Your task to perform on an android device: Go to location settings Image 0: 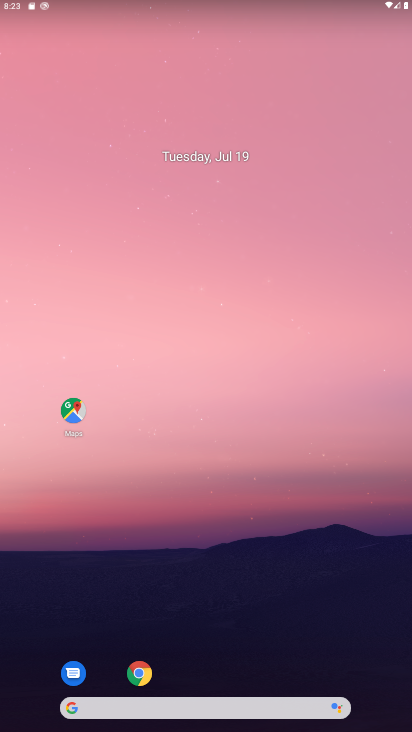
Step 0: drag from (372, 649) to (328, 49)
Your task to perform on an android device: Go to location settings Image 1: 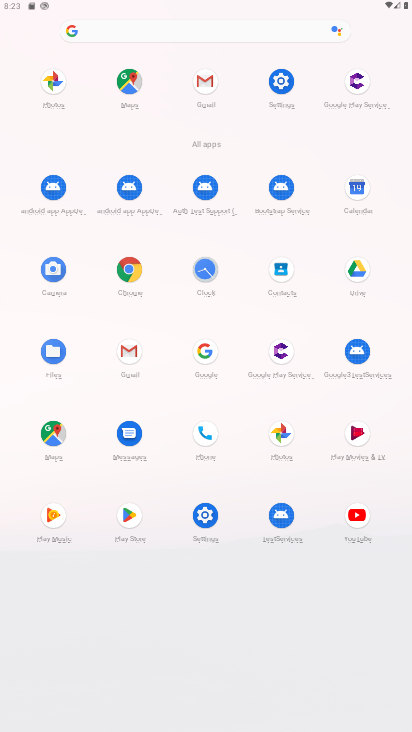
Step 1: click (204, 512)
Your task to perform on an android device: Go to location settings Image 2: 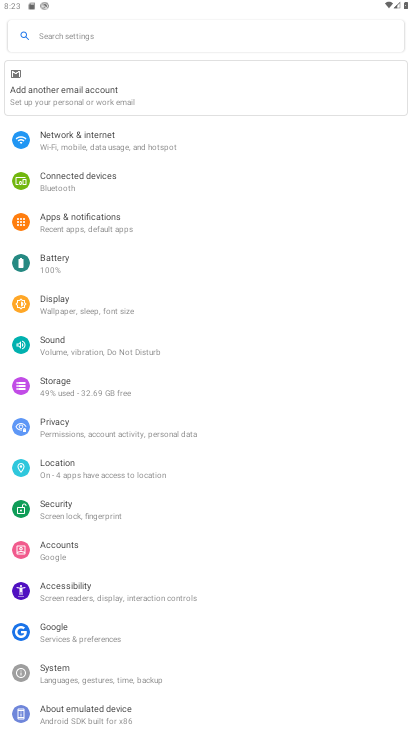
Step 2: click (55, 464)
Your task to perform on an android device: Go to location settings Image 3: 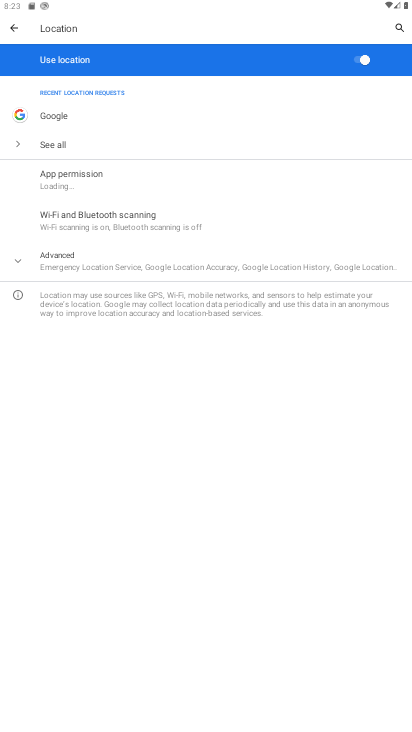
Step 3: click (14, 263)
Your task to perform on an android device: Go to location settings Image 4: 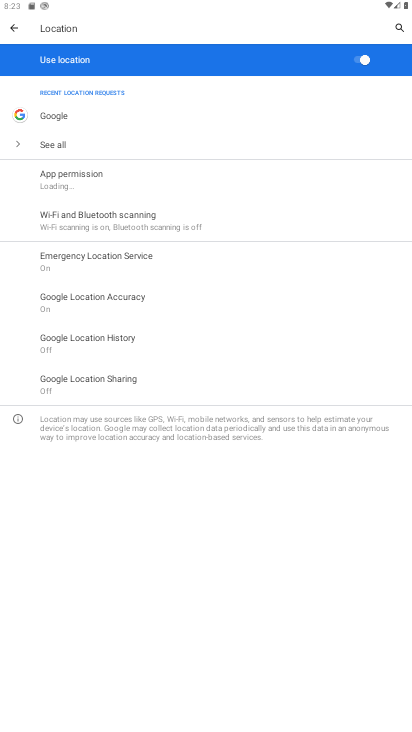
Step 4: task complete